Your task to perform on an android device: Show me the alarms in the clock app Image 0: 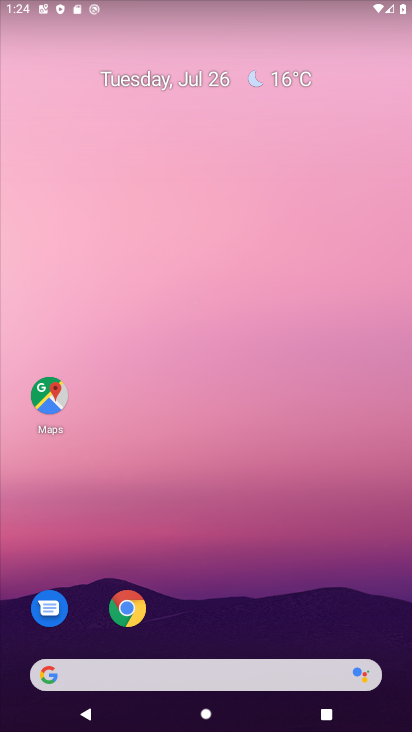
Step 0: drag from (194, 615) to (131, 141)
Your task to perform on an android device: Show me the alarms in the clock app Image 1: 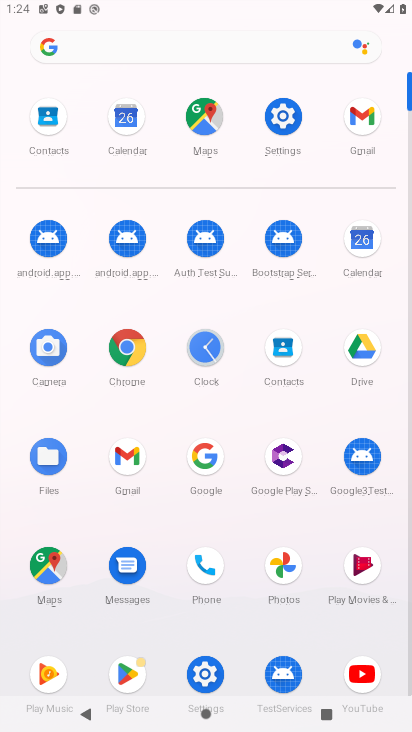
Step 1: click (193, 362)
Your task to perform on an android device: Show me the alarms in the clock app Image 2: 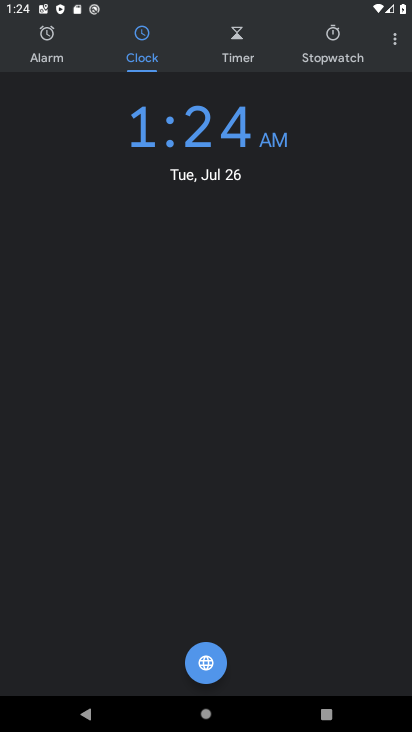
Step 2: task complete